Your task to perform on an android device: turn notification dots off Image 0: 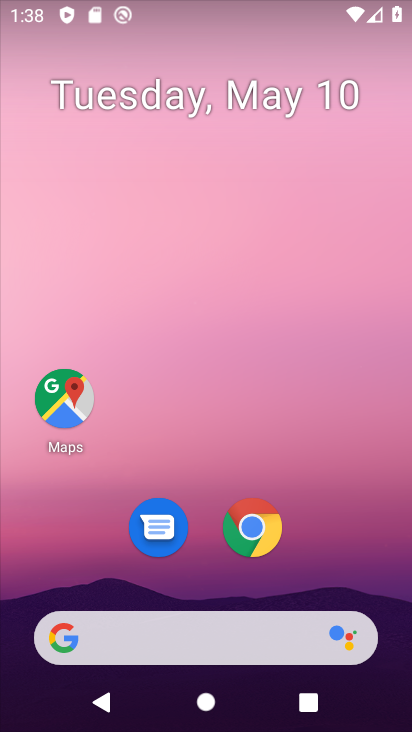
Step 0: drag from (189, 601) to (287, 79)
Your task to perform on an android device: turn notification dots off Image 1: 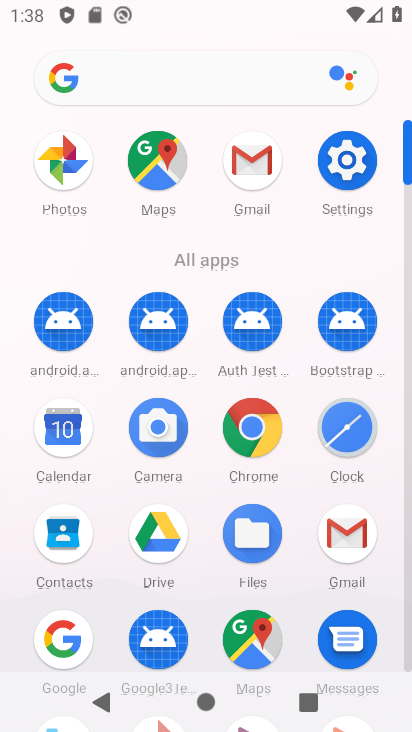
Step 1: drag from (165, 666) to (245, 361)
Your task to perform on an android device: turn notification dots off Image 2: 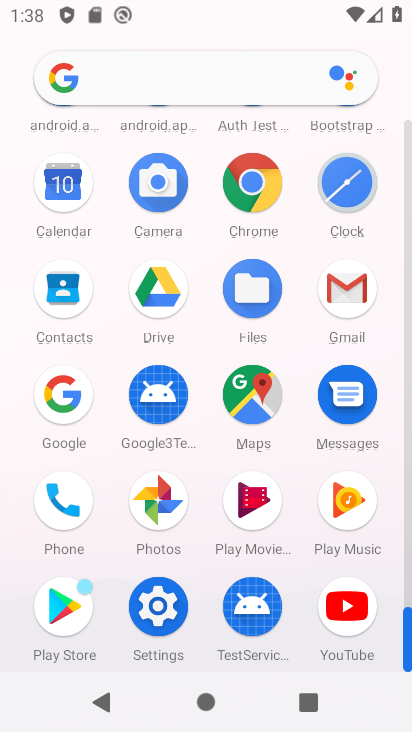
Step 2: click (153, 618)
Your task to perform on an android device: turn notification dots off Image 3: 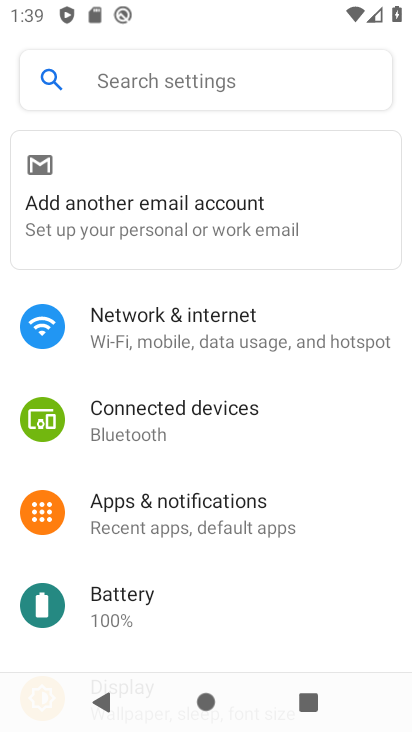
Step 3: click (192, 544)
Your task to perform on an android device: turn notification dots off Image 4: 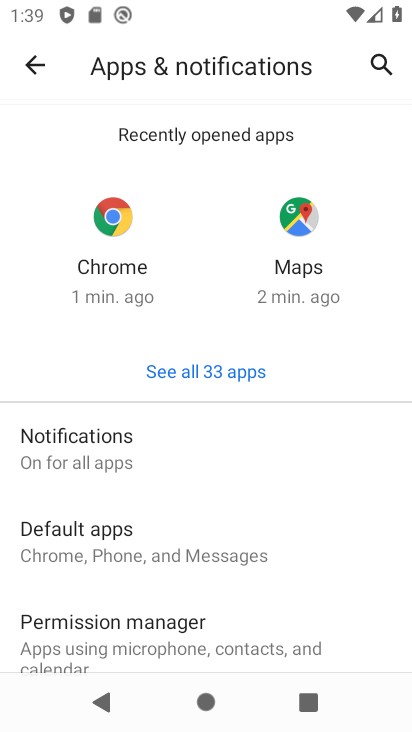
Step 4: click (197, 472)
Your task to perform on an android device: turn notification dots off Image 5: 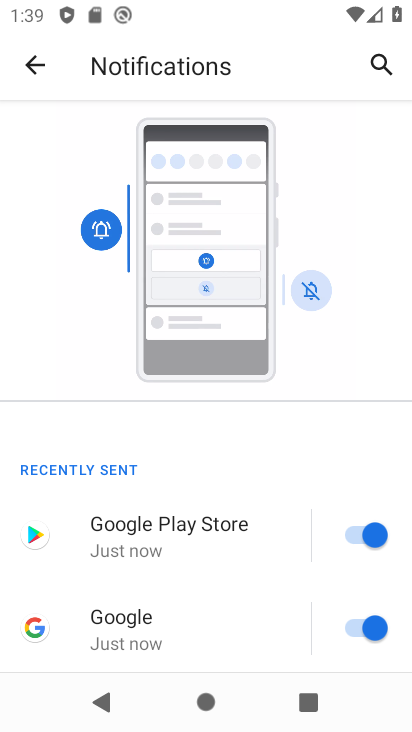
Step 5: drag from (188, 681) to (291, 173)
Your task to perform on an android device: turn notification dots off Image 6: 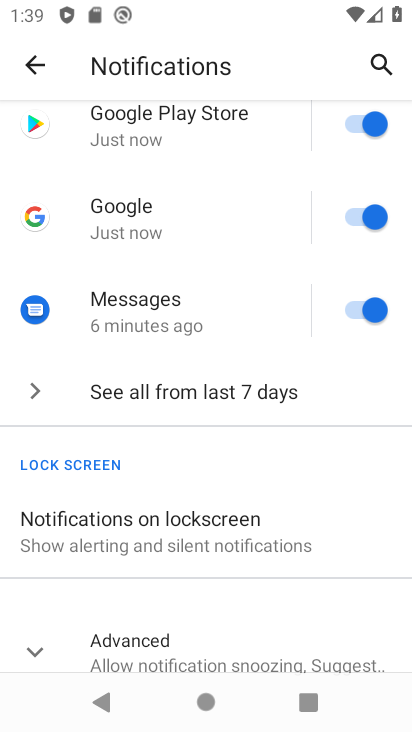
Step 6: drag from (211, 657) to (275, 382)
Your task to perform on an android device: turn notification dots off Image 7: 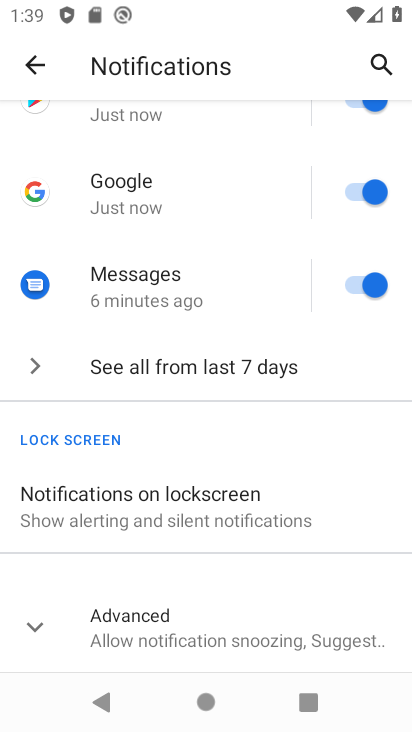
Step 7: click (194, 634)
Your task to perform on an android device: turn notification dots off Image 8: 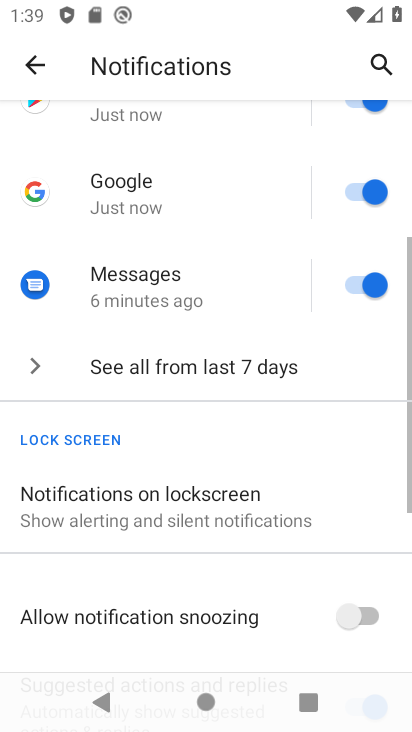
Step 8: drag from (172, 640) to (278, 285)
Your task to perform on an android device: turn notification dots off Image 9: 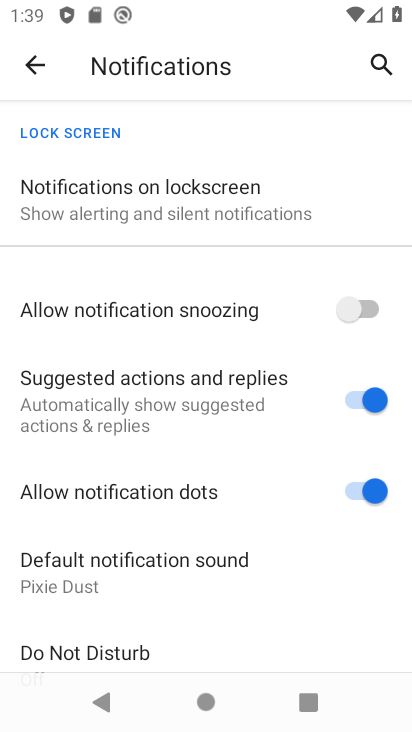
Step 9: click (353, 491)
Your task to perform on an android device: turn notification dots off Image 10: 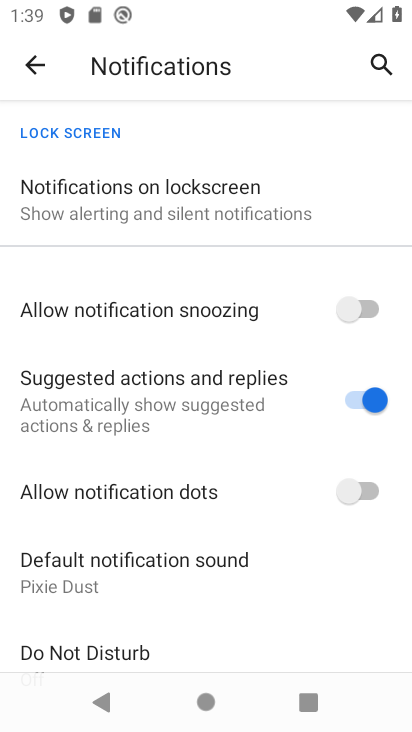
Step 10: task complete